Your task to perform on an android device: Open Google Image 0: 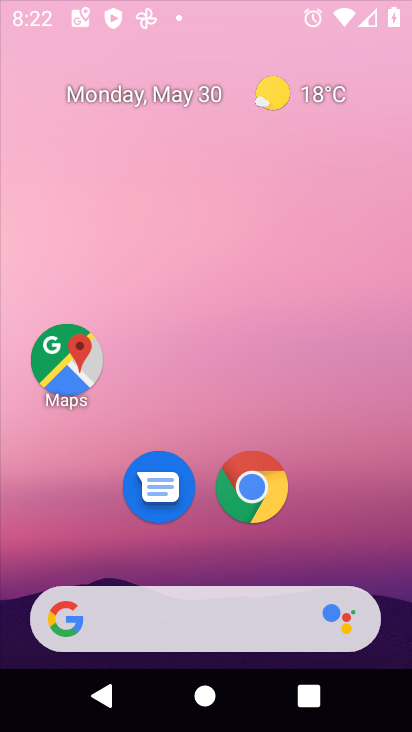
Step 0: press home button
Your task to perform on an android device: Open Google Image 1: 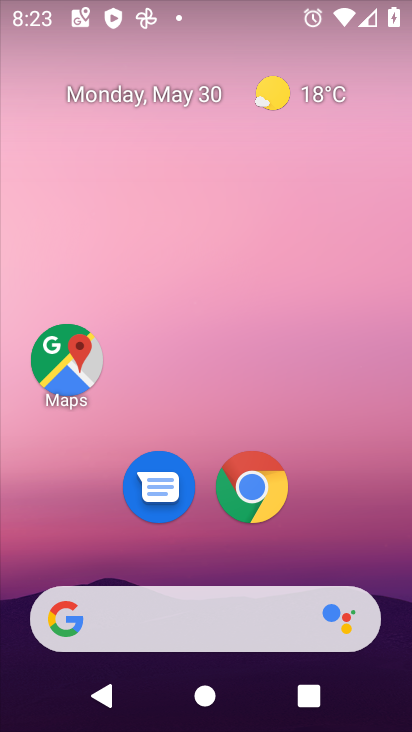
Step 1: click (64, 618)
Your task to perform on an android device: Open Google Image 2: 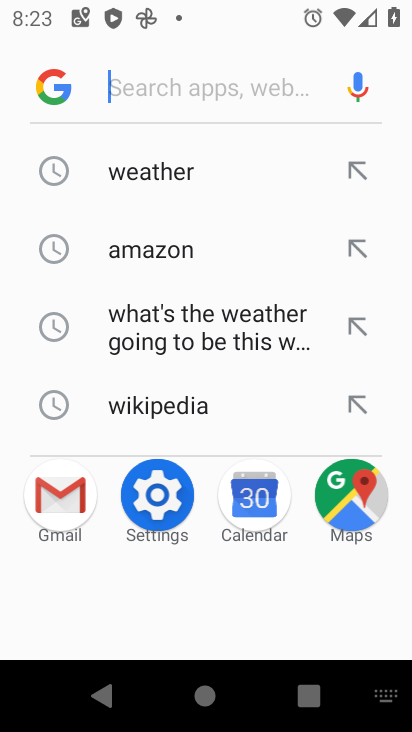
Step 2: task complete